Your task to perform on an android device: delete a single message in the gmail app Image 0: 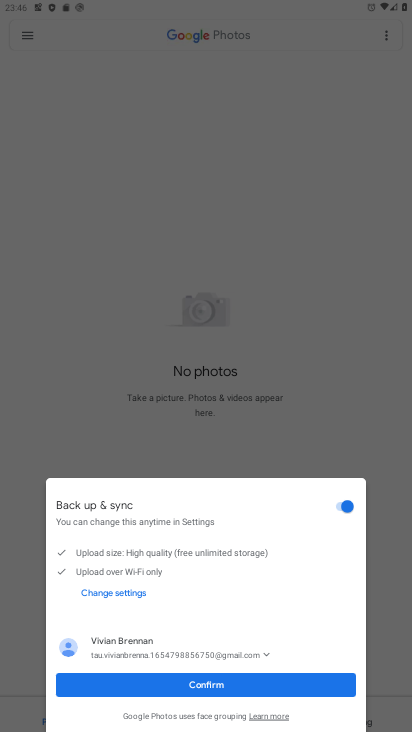
Step 0: press home button
Your task to perform on an android device: delete a single message in the gmail app Image 1: 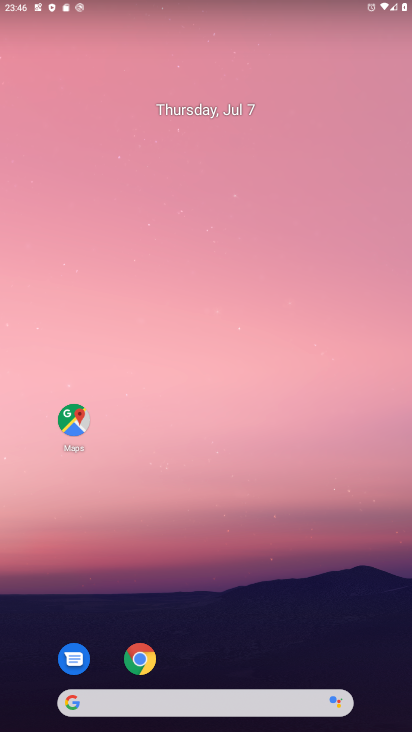
Step 1: drag from (238, 637) to (264, 95)
Your task to perform on an android device: delete a single message in the gmail app Image 2: 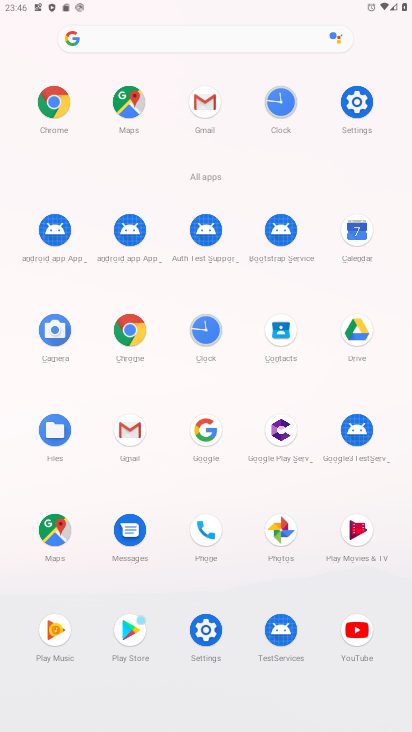
Step 2: click (203, 124)
Your task to perform on an android device: delete a single message in the gmail app Image 3: 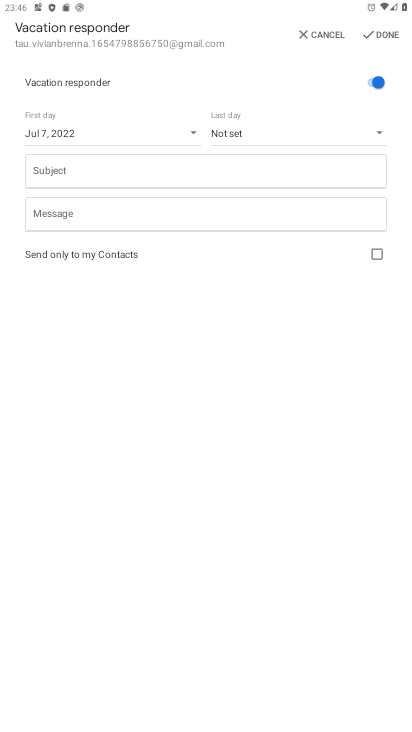
Step 3: click (321, 29)
Your task to perform on an android device: delete a single message in the gmail app Image 4: 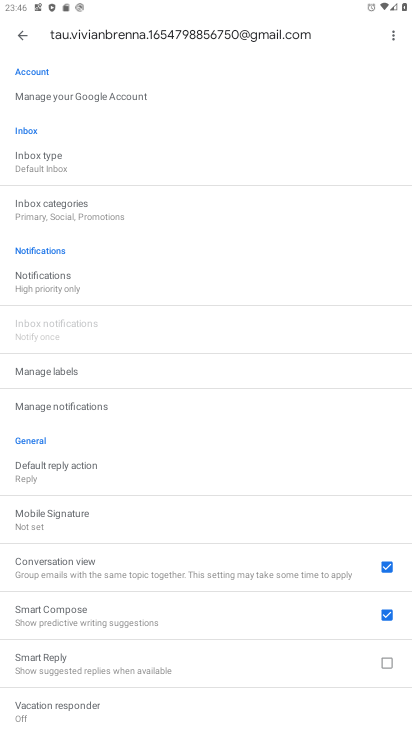
Step 4: click (24, 36)
Your task to perform on an android device: delete a single message in the gmail app Image 5: 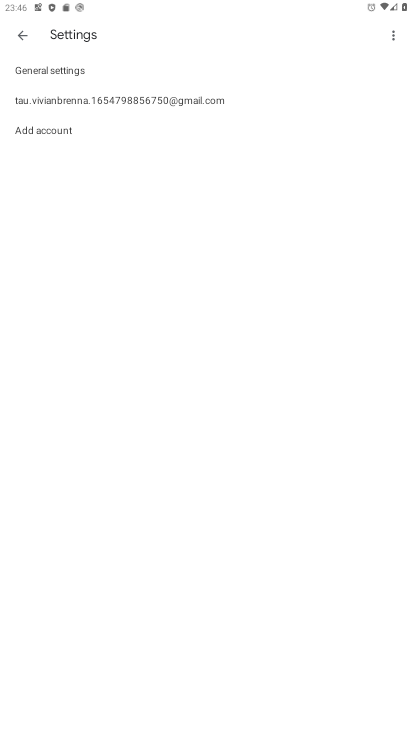
Step 5: click (24, 36)
Your task to perform on an android device: delete a single message in the gmail app Image 6: 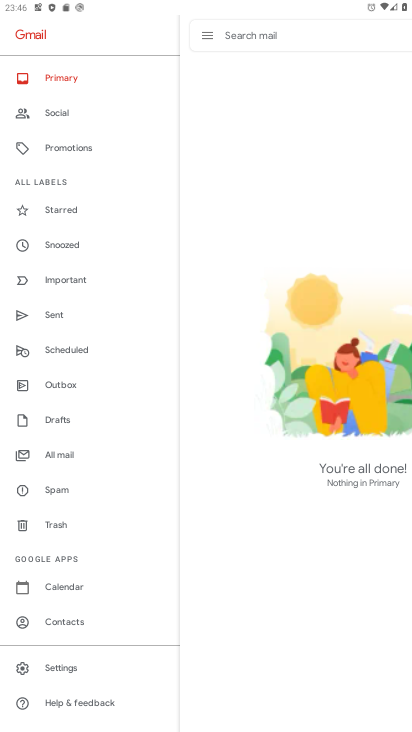
Step 6: task complete